Your task to perform on an android device: Open Youtube and go to "Your channel" Image 0: 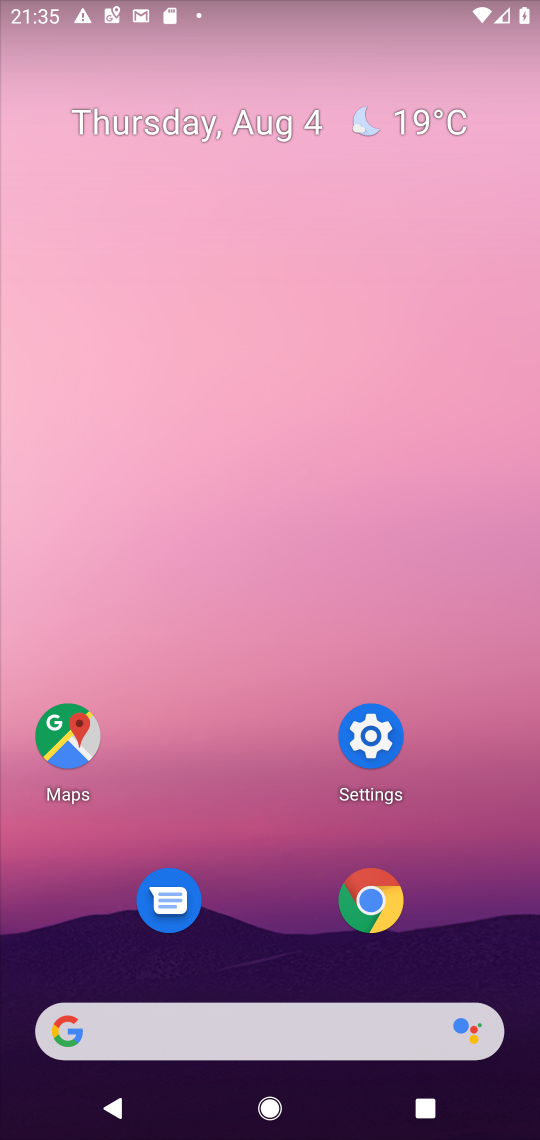
Step 0: press home button
Your task to perform on an android device: Open Youtube and go to "Your channel" Image 1: 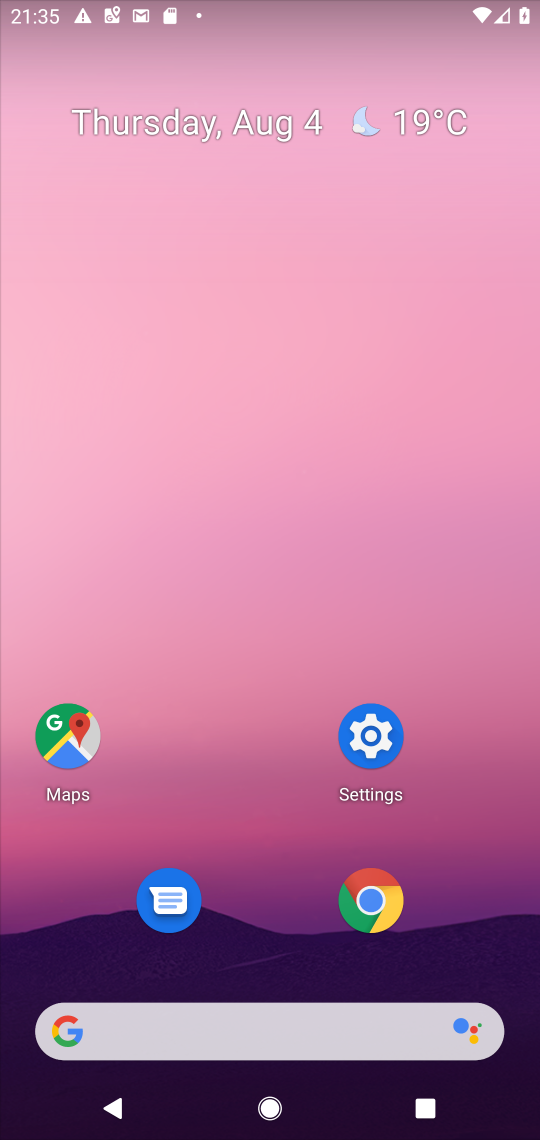
Step 1: drag from (232, 1031) to (424, 92)
Your task to perform on an android device: Open Youtube and go to "Your channel" Image 2: 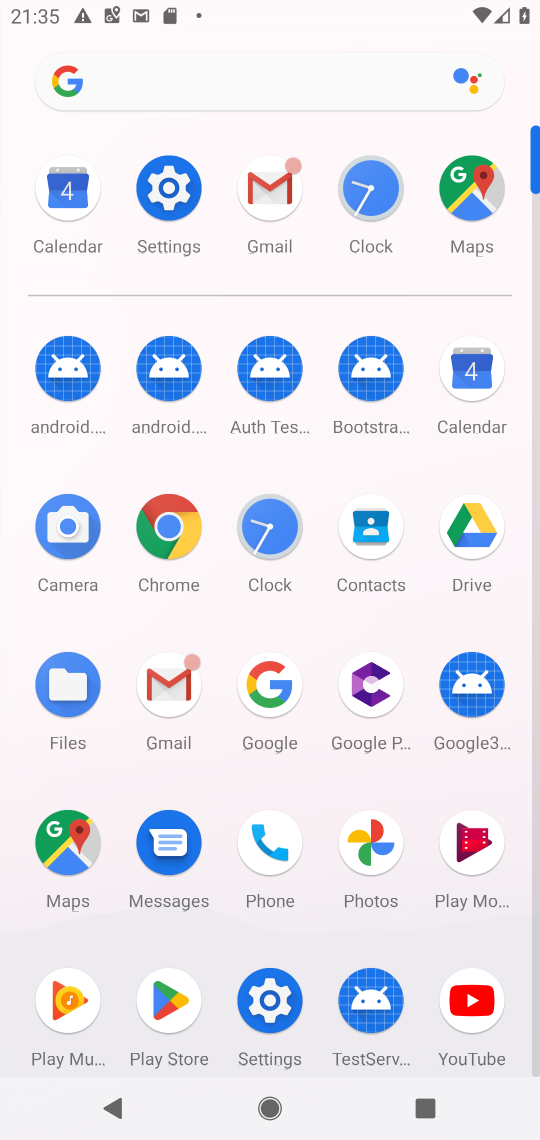
Step 2: click (469, 997)
Your task to perform on an android device: Open Youtube and go to "Your channel" Image 3: 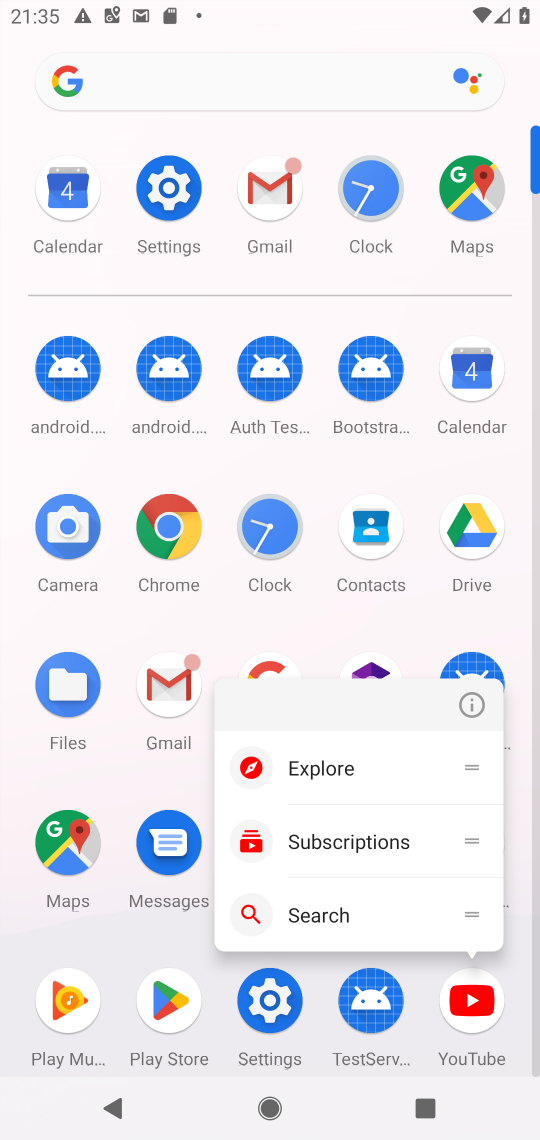
Step 3: click (469, 993)
Your task to perform on an android device: Open Youtube and go to "Your channel" Image 4: 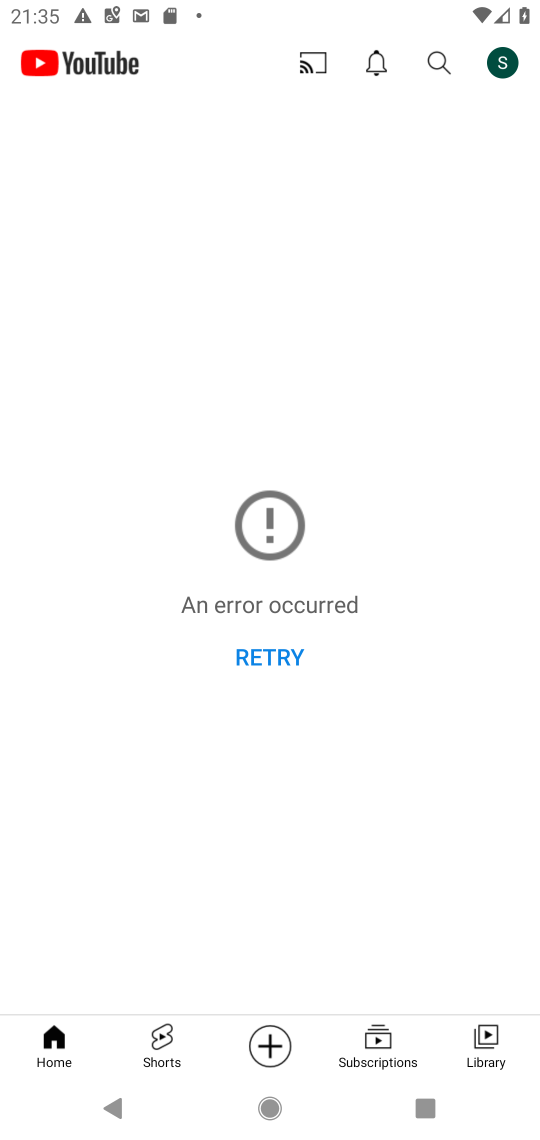
Step 4: click (278, 660)
Your task to perform on an android device: Open Youtube and go to "Your channel" Image 5: 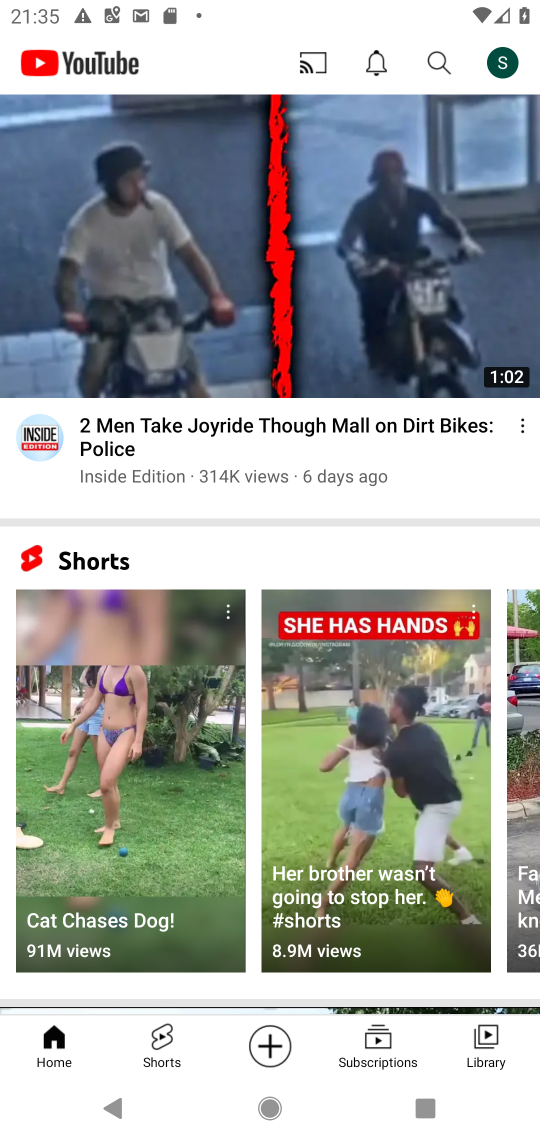
Step 5: click (500, 58)
Your task to perform on an android device: Open Youtube and go to "Your channel" Image 6: 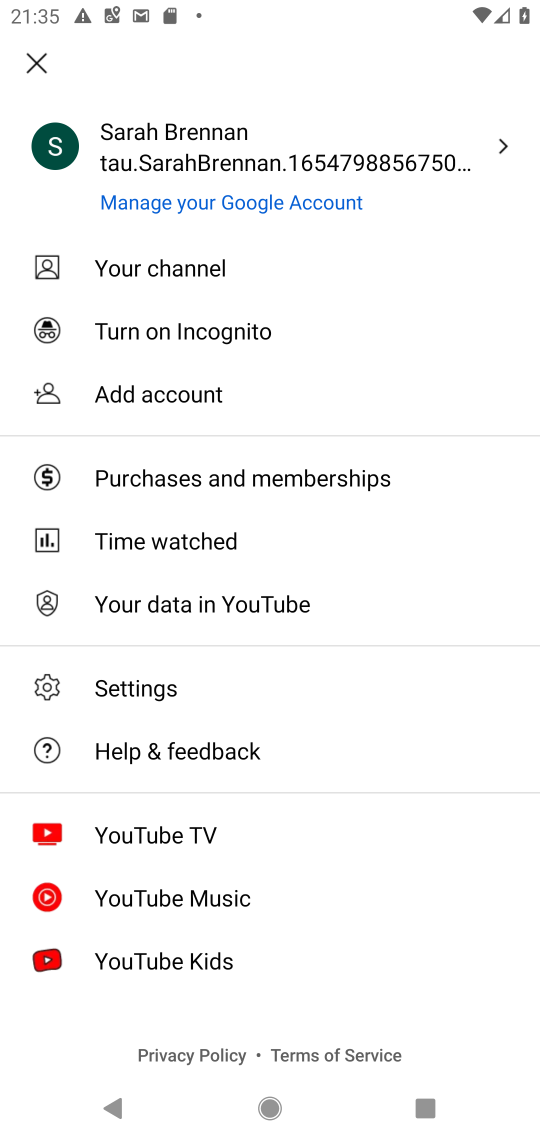
Step 6: click (165, 267)
Your task to perform on an android device: Open Youtube and go to "Your channel" Image 7: 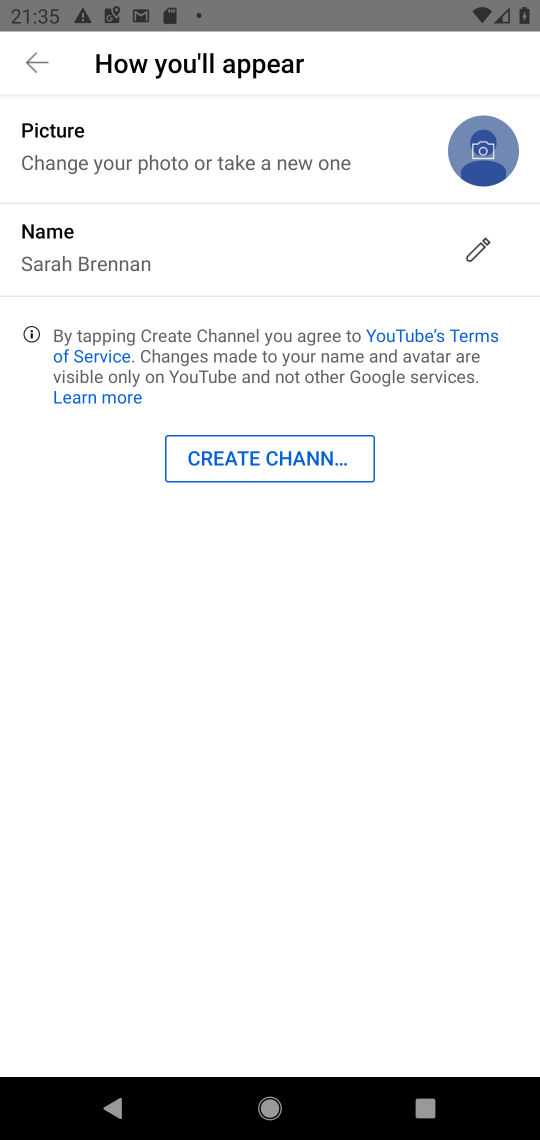
Step 7: task complete